Your task to perform on an android device: move an email to a new category in the gmail app Image 0: 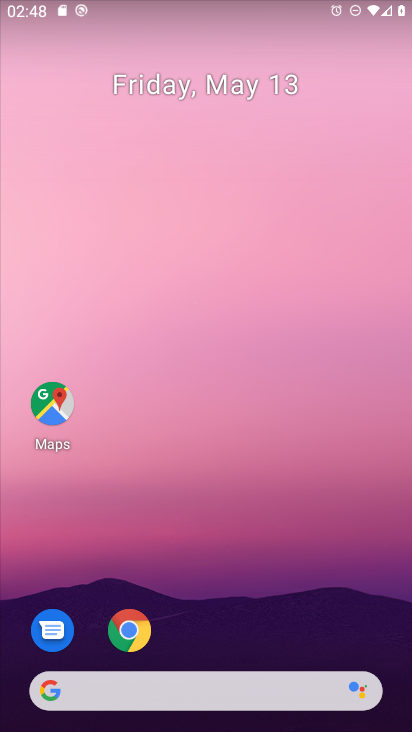
Step 0: drag from (258, 704) to (288, 133)
Your task to perform on an android device: move an email to a new category in the gmail app Image 1: 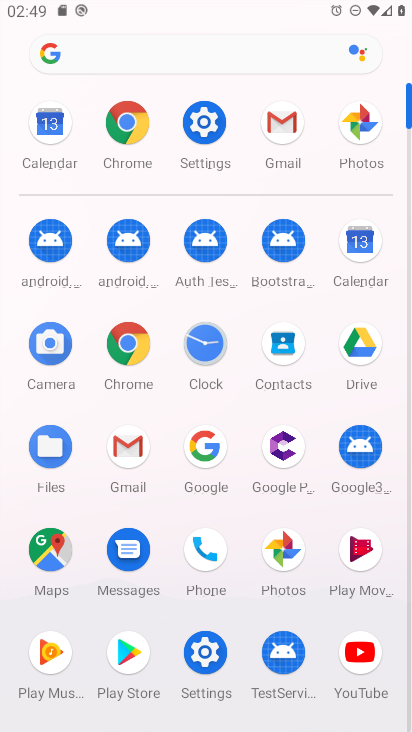
Step 1: click (142, 467)
Your task to perform on an android device: move an email to a new category in the gmail app Image 2: 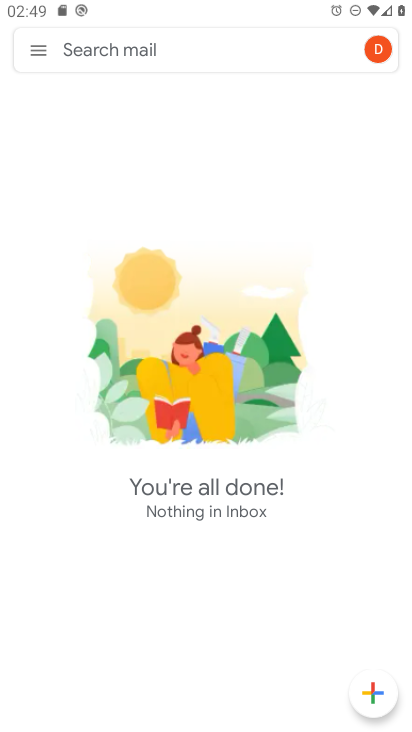
Step 2: click (27, 46)
Your task to perform on an android device: move an email to a new category in the gmail app Image 3: 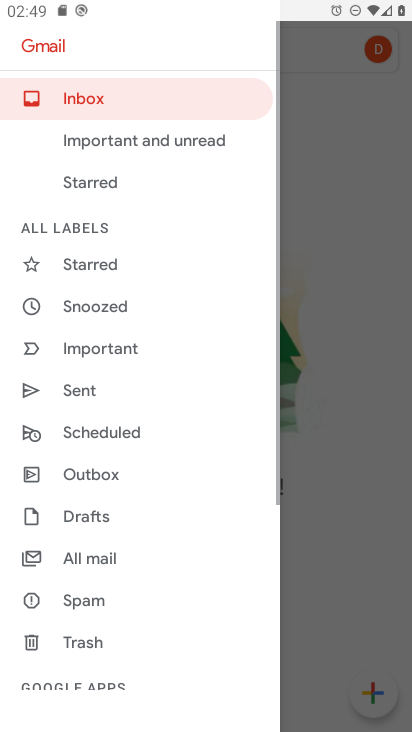
Step 3: drag from (125, 592) to (189, 474)
Your task to perform on an android device: move an email to a new category in the gmail app Image 4: 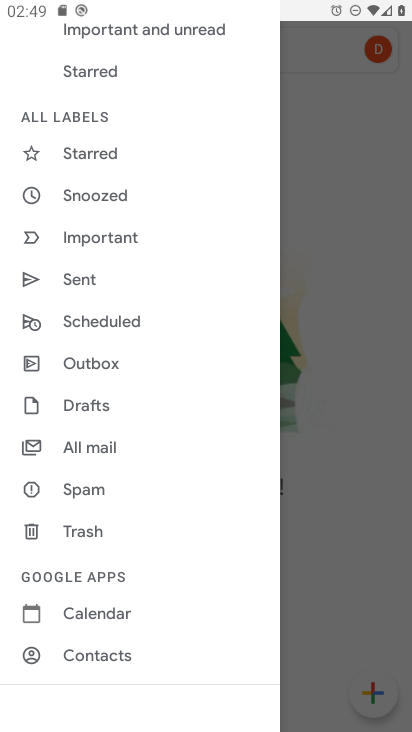
Step 4: drag from (102, 636) to (162, 524)
Your task to perform on an android device: move an email to a new category in the gmail app Image 5: 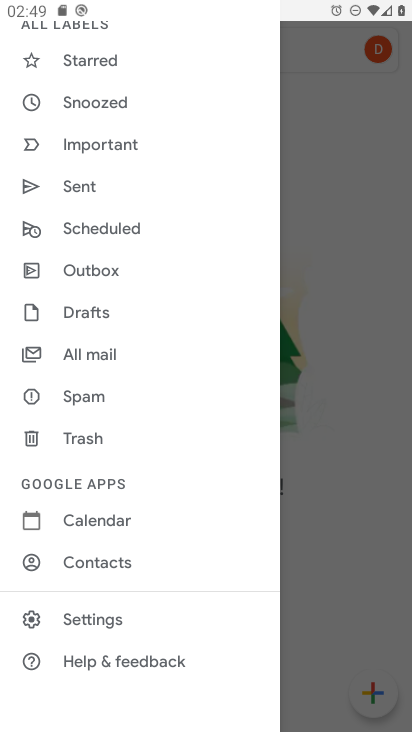
Step 5: click (110, 627)
Your task to perform on an android device: move an email to a new category in the gmail app Image 6: 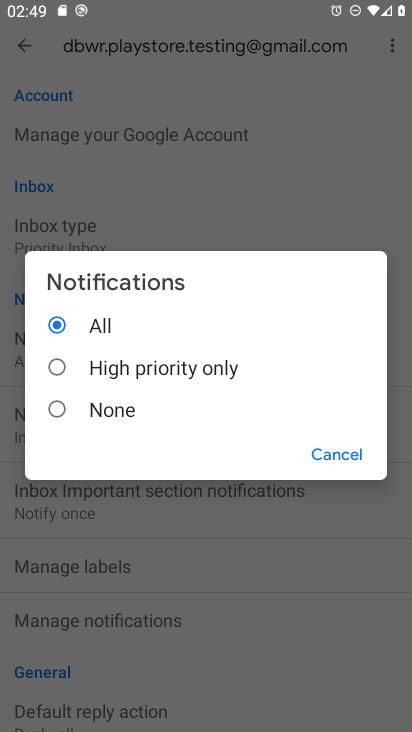
Step 6: click (318, 450)
Your task to perform on an android device: move an email to a new category in the gmail app Image 7: 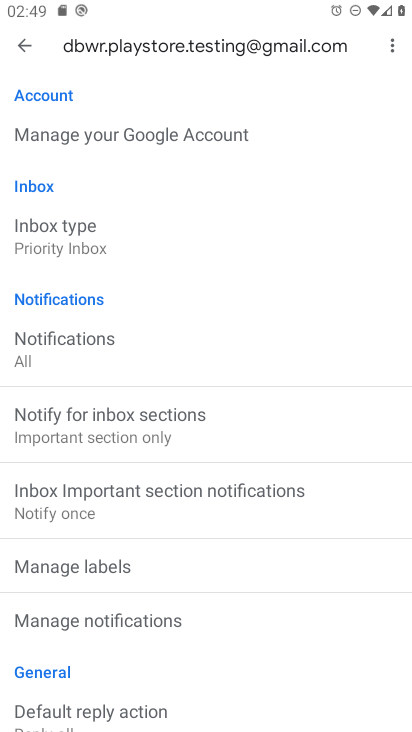
Step 7: click (90, 244)
Your task to perform on an android device: move an email to a new category in the gmail app Image 8: 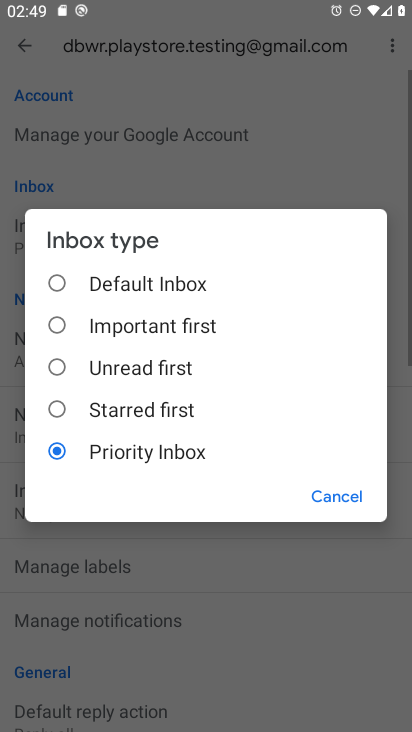
Step 8: click (115, 273)
Your task to perform on an android device: move an email to a new category in the gmail app Image 9: 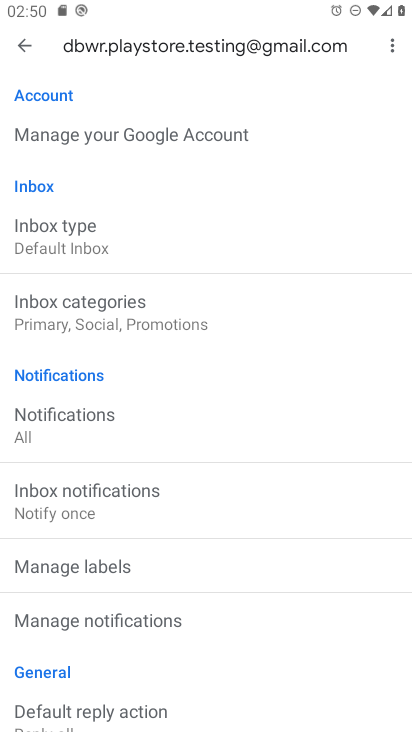
Step 9: click (112, 245)
Your task to perform on an android device: move an email to a new category in the gmail app Image 10: 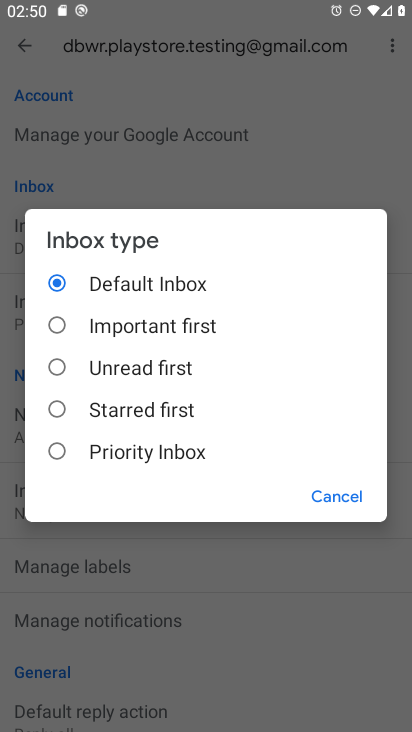
Step 10: click (207, 547)
Your task to perform on an android device: move an email to a new category in the gmail app Image 11: 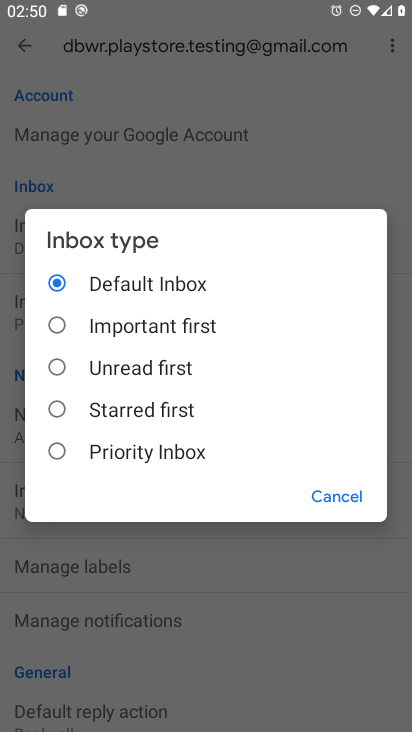
Step 11: click (334, 498)
Your task to perform on an android device: move an email to a new category in the gmail app Image 12: 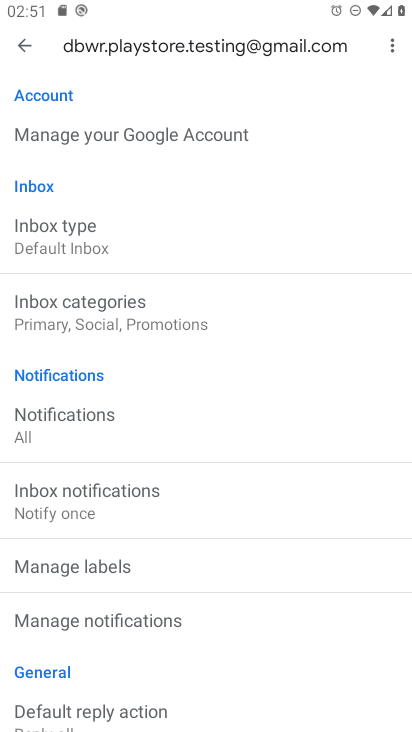
Step 12: click (132, 309)
Your task to perform on an android device: move an email to a new category in the gmail app Image 13: 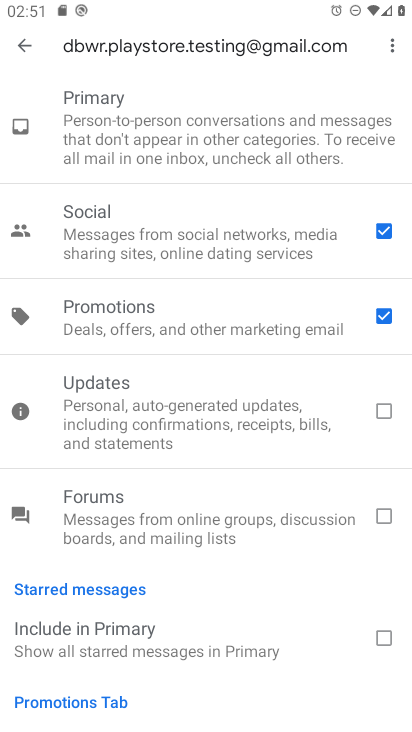
Step 13: task complete